Your task to perform on an android device: Search for vegetarian restaurants on Maps Image 0: 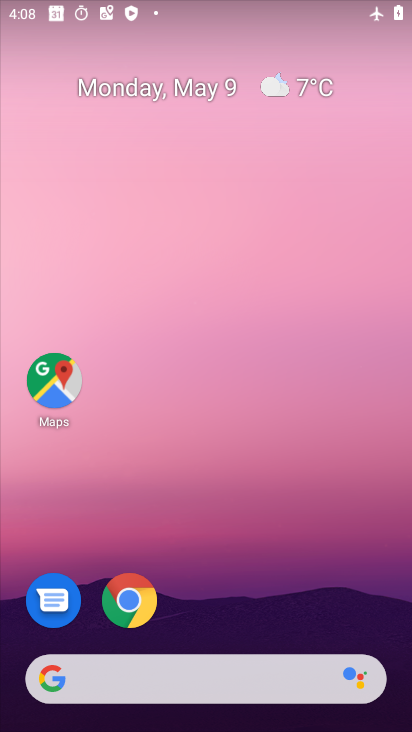
Step 0: drag from (262, 554) to (273, 37)
Your task to perform on an android device: Search for vegetarian restaurants on Maps Image 1: 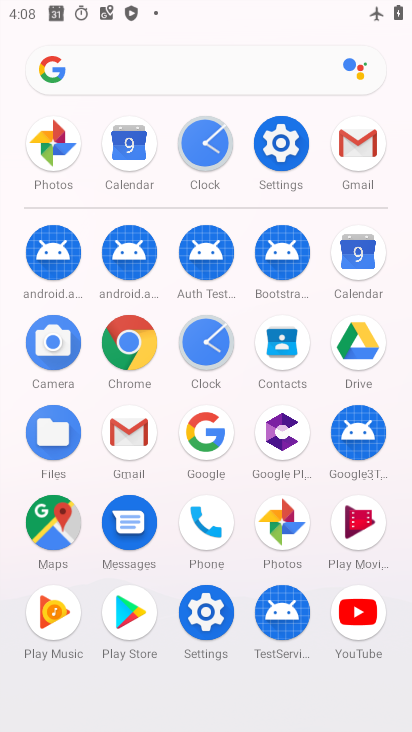
Step 1: click (59, 525)
Your task to perform on an android device: Search for vegetarian restaurants on Maps Image 2: 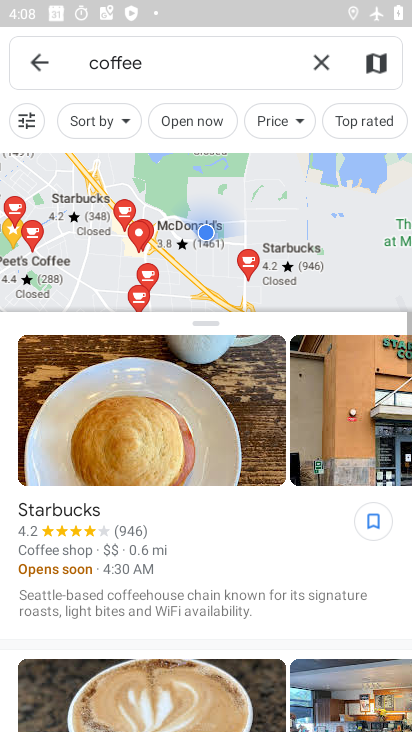
Step 2: click (185, 66)
Your task to perform on an android device: Search for vegetarian restaurants on Maps Image 3: 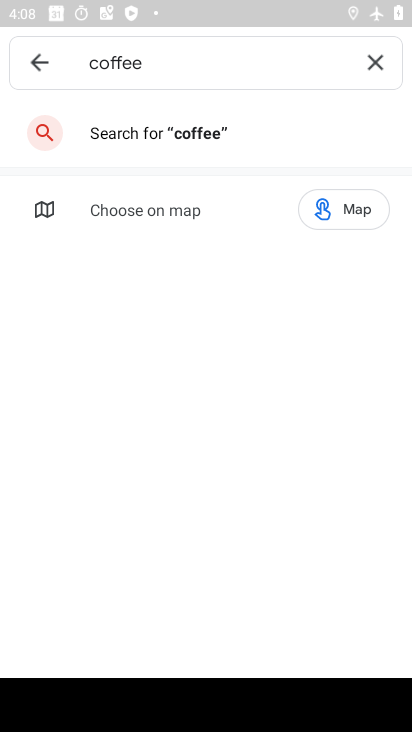
Step 3: click (378, 55)
Your task to perform on an android device: Search for vegetarian restaurants on Maps Image 4: 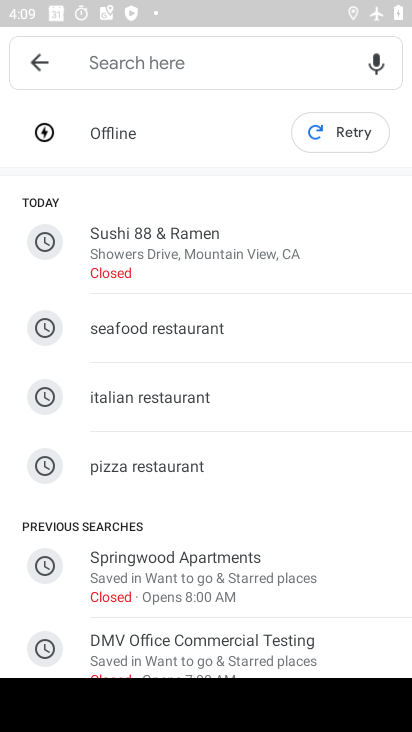
Step 4: type "vegetarian restaurants"
Your task to perform on an android device: Search for vegetarian restaurants on Maps Image 5: 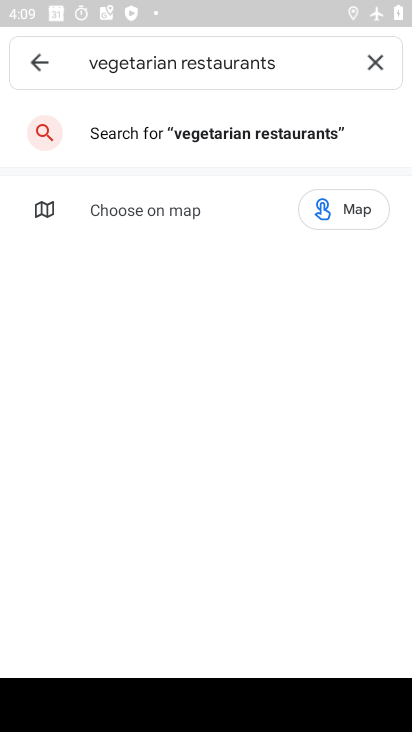
Step 5: click (202, 137)
Your task to perform on an android device: Search for vegetarian restaurants on Maps Image 6: 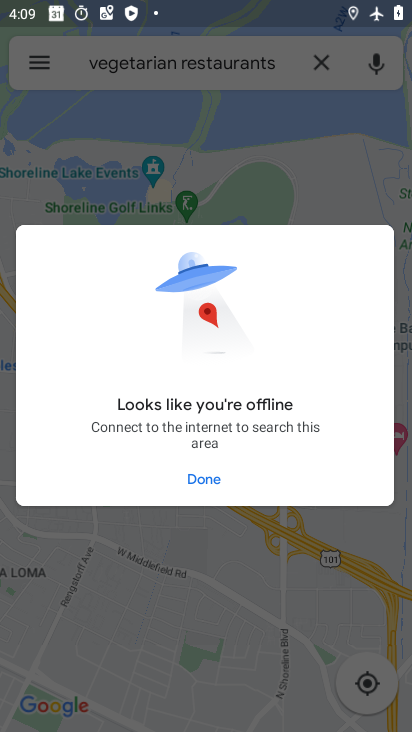
Step 6: task complete